Your task to perform on an android device: What is the recent news? Image 0: 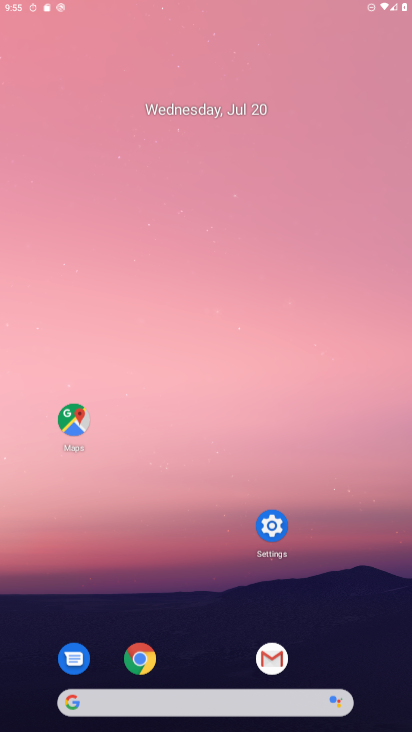
Step 0: press home button
Your task to perform on an android device: What is the recent news? Image 1: 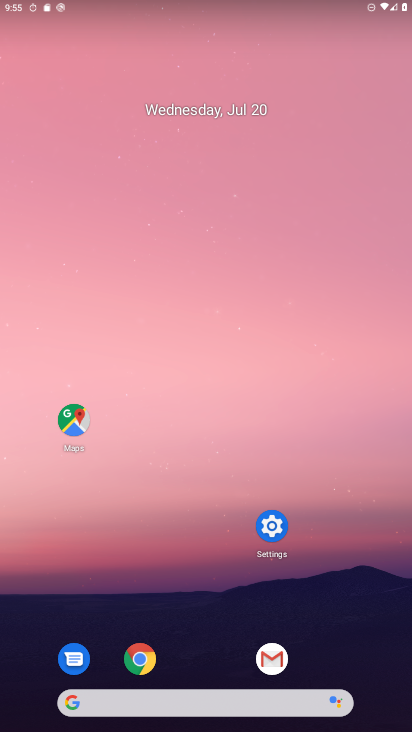
Step 1: click (222, 704)
Your task to perform on an android device: What is the recent news? Image 2: 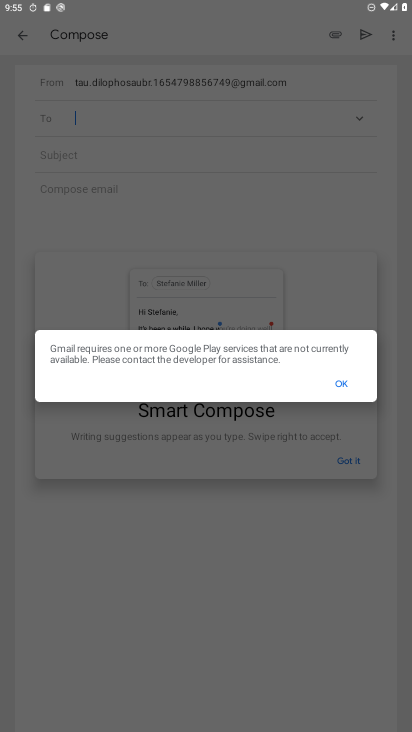
Step 2: click (338, 379)
Your task to perform on an android device: What is the recent news? Image 3: 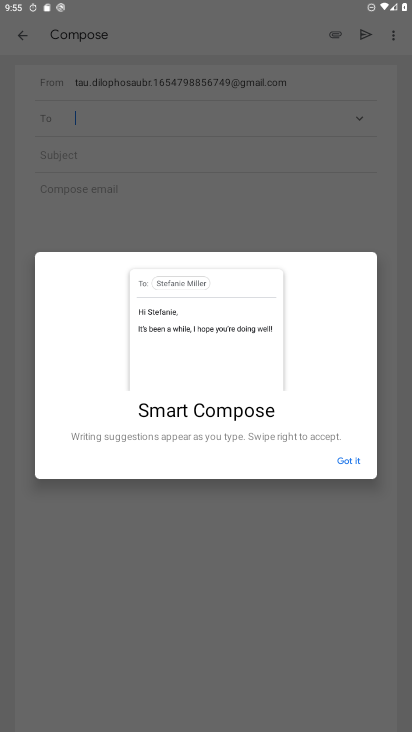
Step 3: press home button
Your task to perform on an android device: What is the recent news? Image 4: 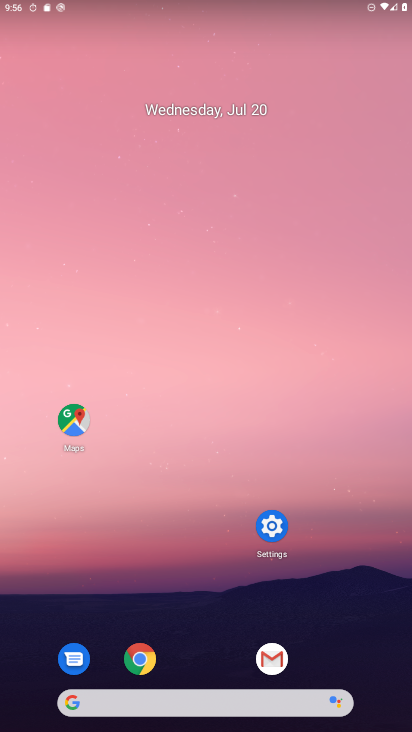
Step 4: click (140, 709)
Your task to perform on an android device: What is the recent news? Image 5: 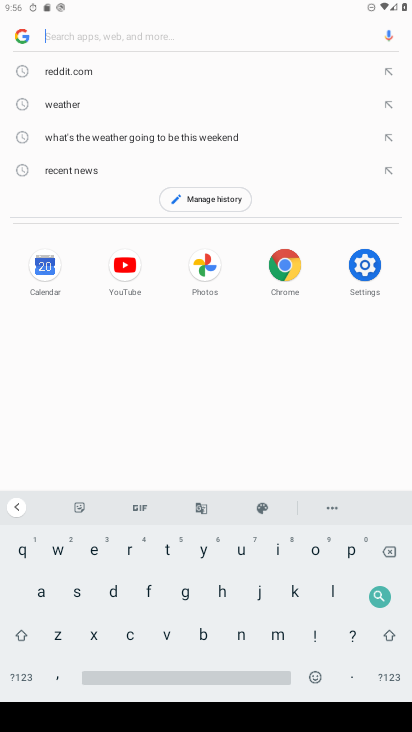
Step 5: click (124, 545)
Your task to perform on an android device: What is the recent news? Image 6: 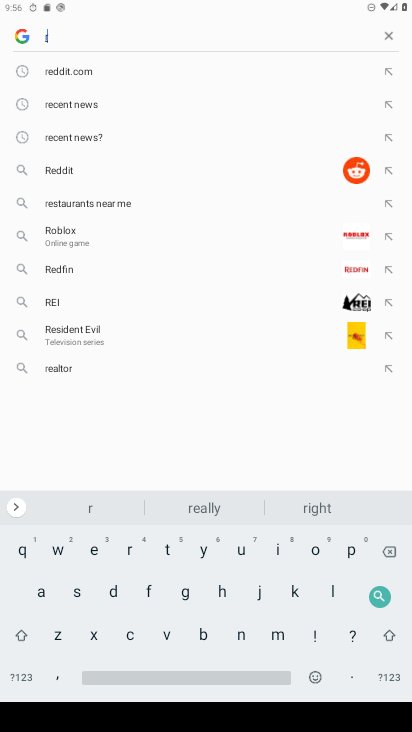
Step 6: click (94, 546)
Your task to perform on an android device: What is the recent news? Image 7: 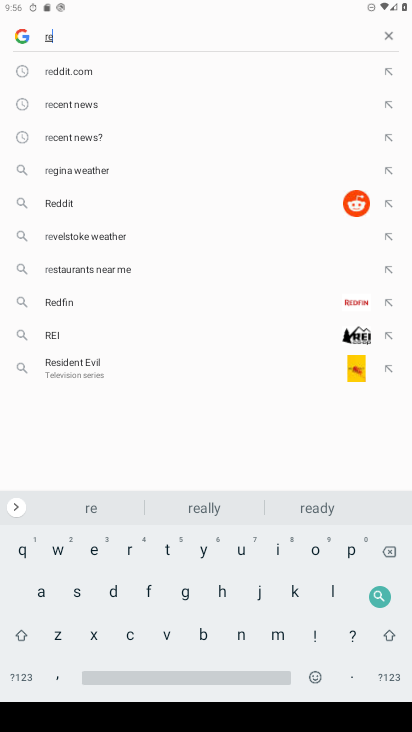
Step 7: click (113, 101)
Your task to perform on an android device: What is the recent news? Image 8: 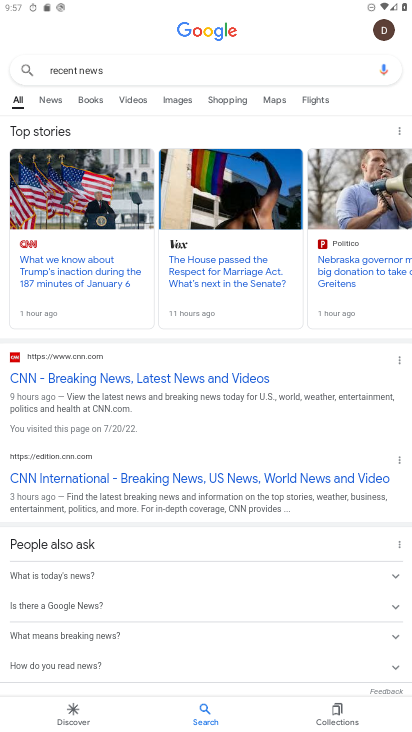
Step 8: task complete